Your task to perform on an android device: turn on location history Image 0: 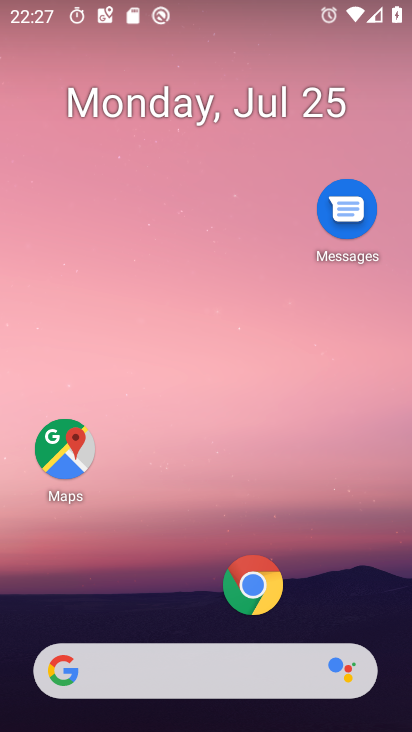
Step 0: press home button
Your task to perform on an android device: turn on location history Image 1: 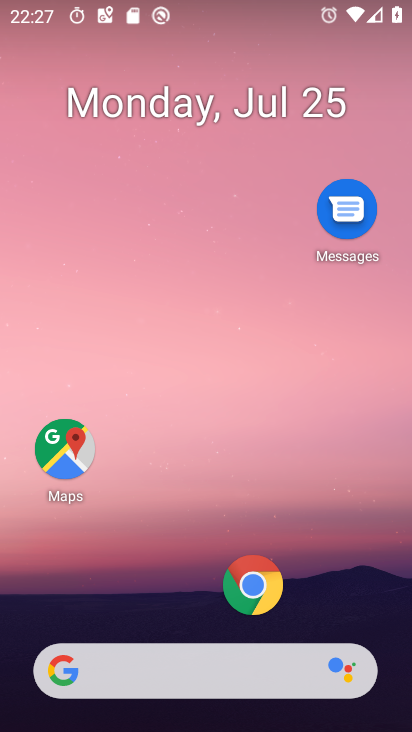
Step 1: click (66, 446)
Your task to perform on an android device: turn on location history Image 2: 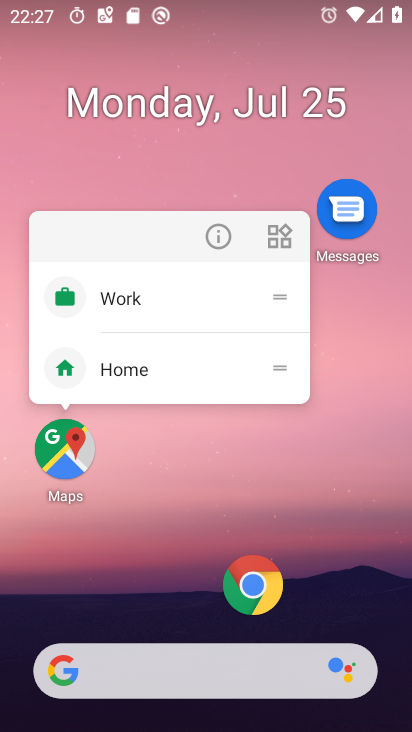
Step 2: click (61, 457)
Your task to perform on an android device: turn on location history Image 3: 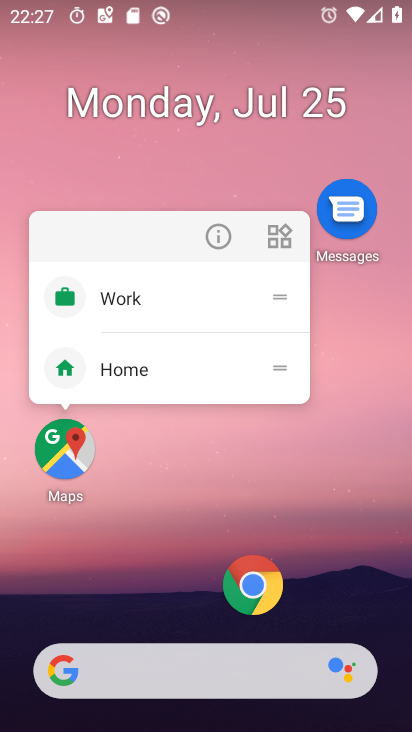
Step 3: click (55, 450)
Your task to perform on an android device: turn on location history Image 4: 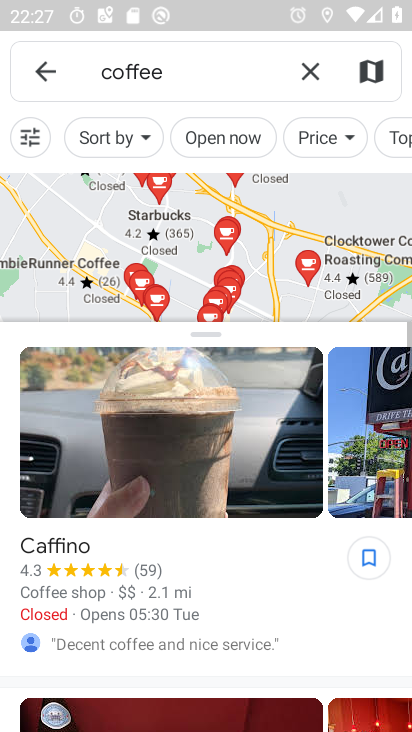
Step 4: click (55, 71)
Your task to perform on an android device: turn on location history Image 5: 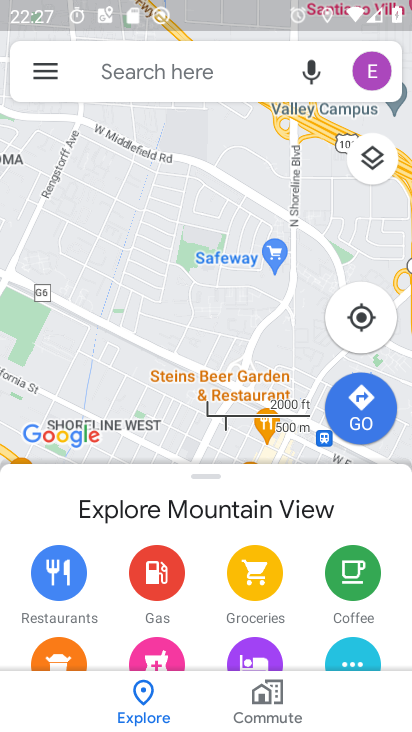
Step 5: click (45, 72)
Your task to perform on an android device: turn on location history Image 6: 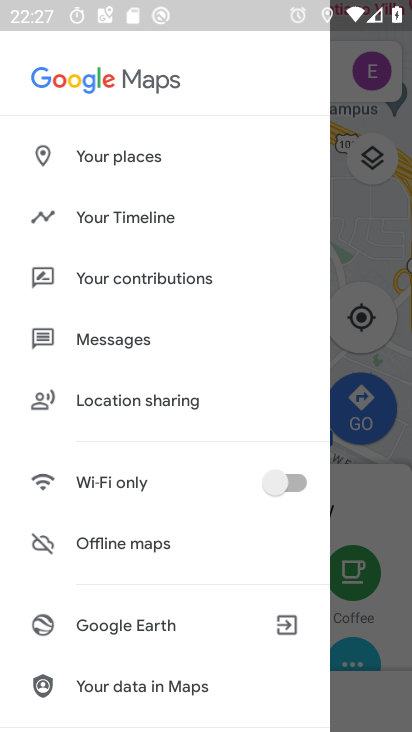
Step 6: click (137, 219)
Your task to perform on an android device: turn on location history Image 7: 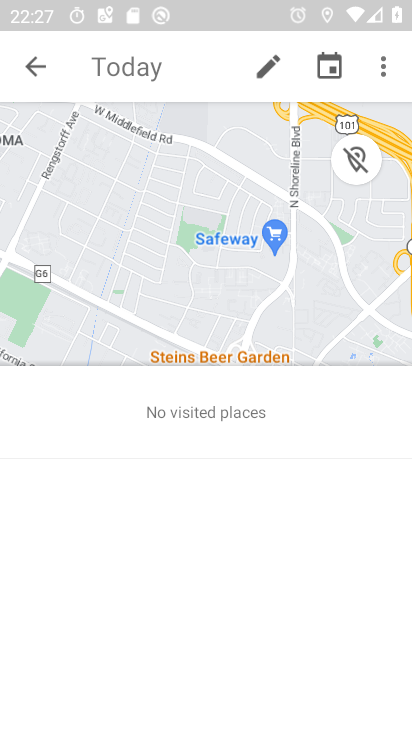
Step 7: click (379, 70)
Your task to perform on an android device: turn on location history Image 8: 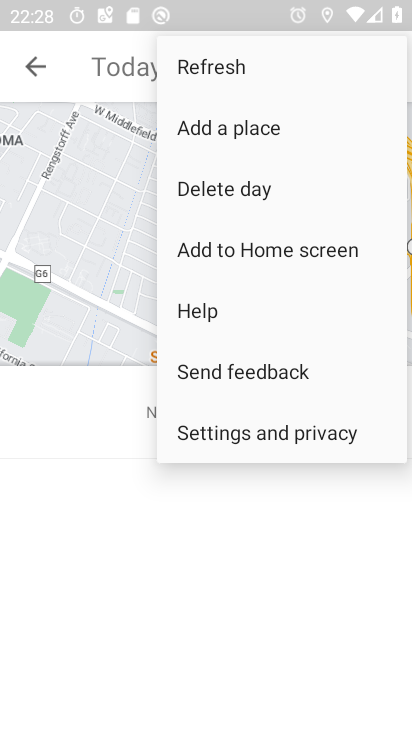
Step 8: click (250, 436)
Your task to perform on an android device: turn on location history Image 9: 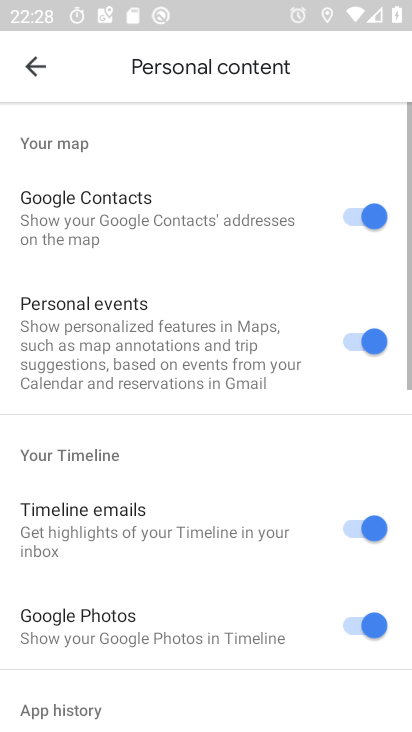
Step 9: drag from (179, 583) to (349, 123)
Your task to perform on an android device: turn on location history Image 10: 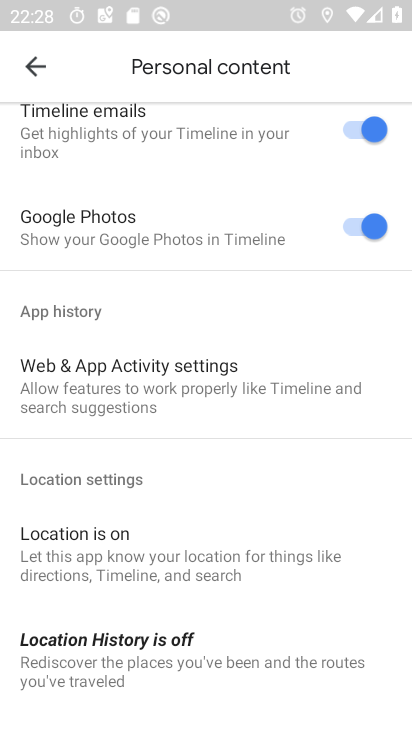
Step 10: drag from (202, 608) to (310, 193)
Your task to perform on an android device: turn on location history Image 11: 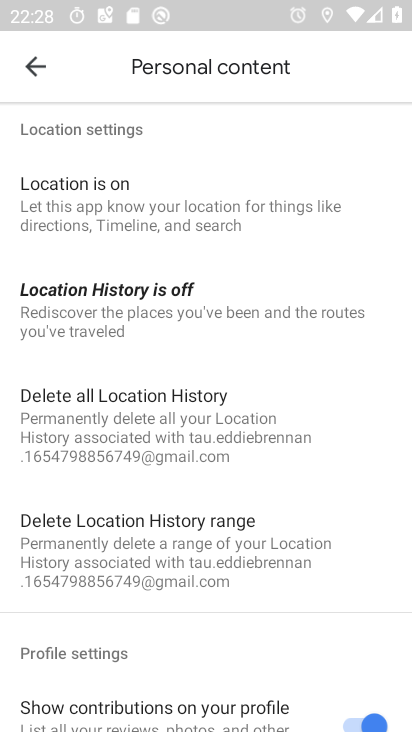
Step 11: click (176, 299)
Your task to perform on an android device: turn on location history Image 12: 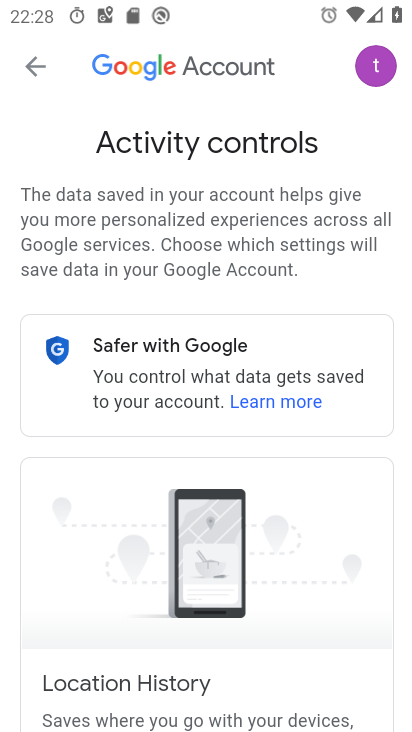
Step 12: drag from (265, 626) to (356, 126)
Your task to perform on an android device: turn on location history Image 13: 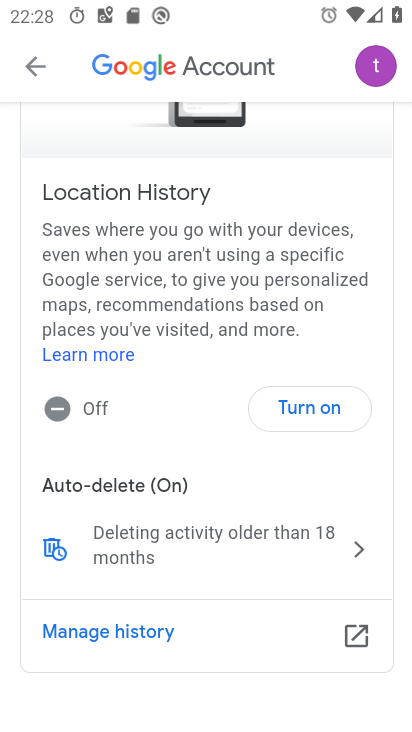
Step 13: click (298, 405)
Your task to perform on an android device: turn on location history Image 14: 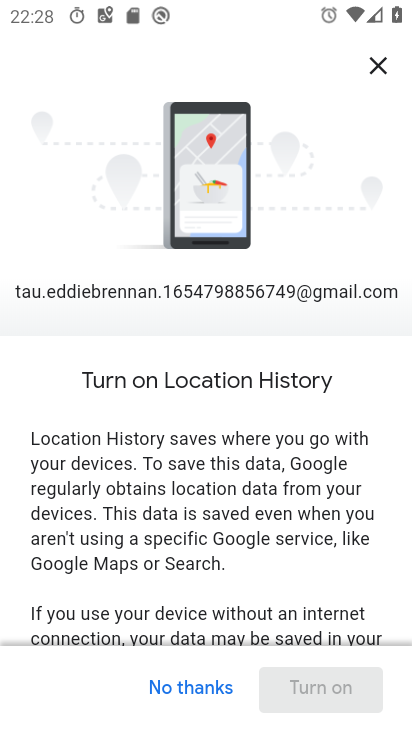
Step 14: drag from (231, 576) to (358, 90)
Your task to perform on an android device: turn on location history Image 15: 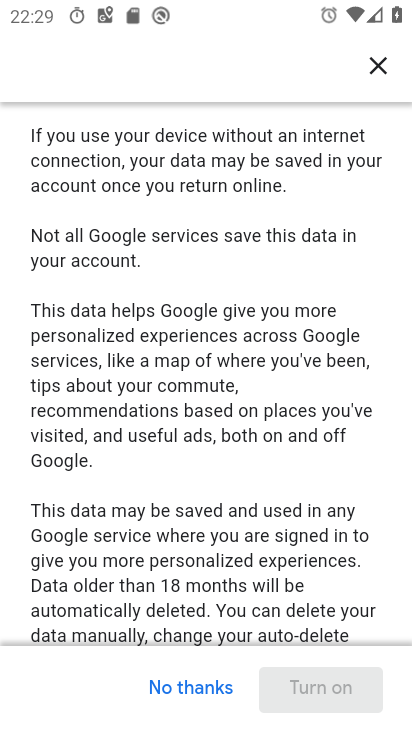
Step 15: drag from (267, 604) to (336, 49)
Your task to perform on an android device: turn on location history Image 16: 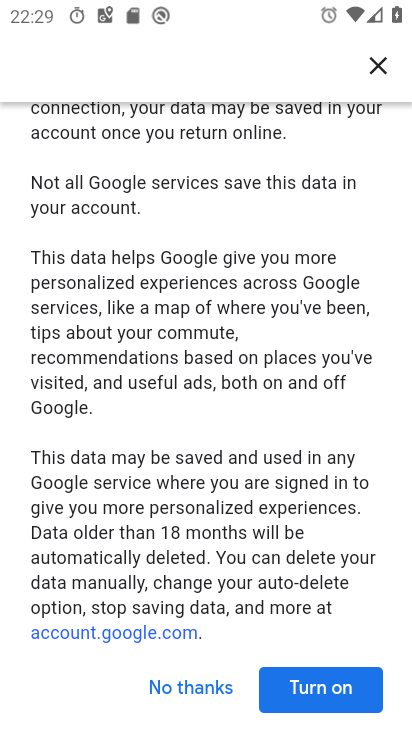
Step 16: click (323, 685)
Your task to perform on an android device: turn on location history Image 17: 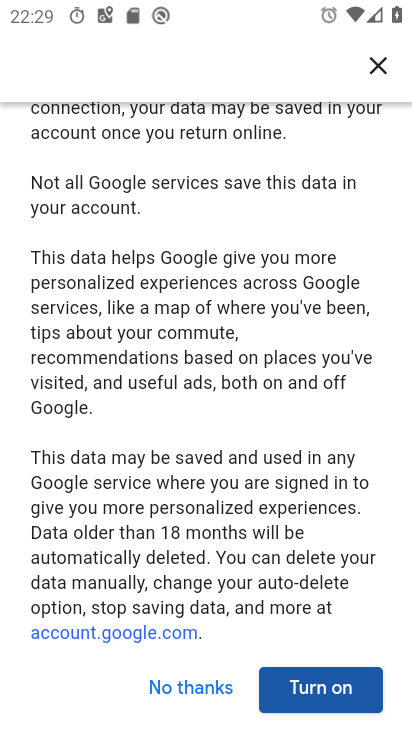
Step 17: click (321, 695)
Your task to perform on an android device: turn on location history Image 18: 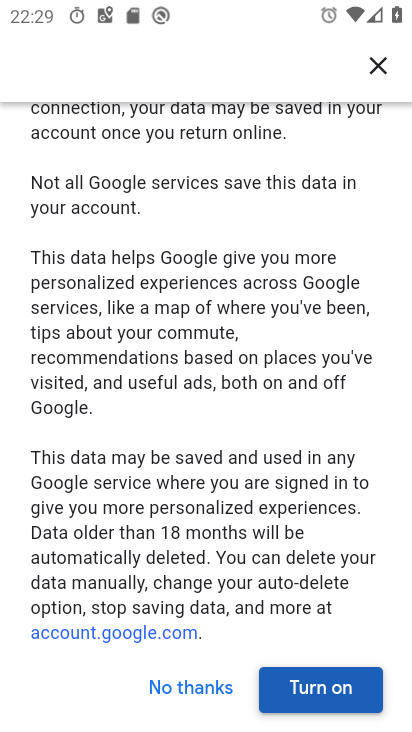
Step 18: click (321, 694)
Your task to perform on an android device: turn on location history Image 19: 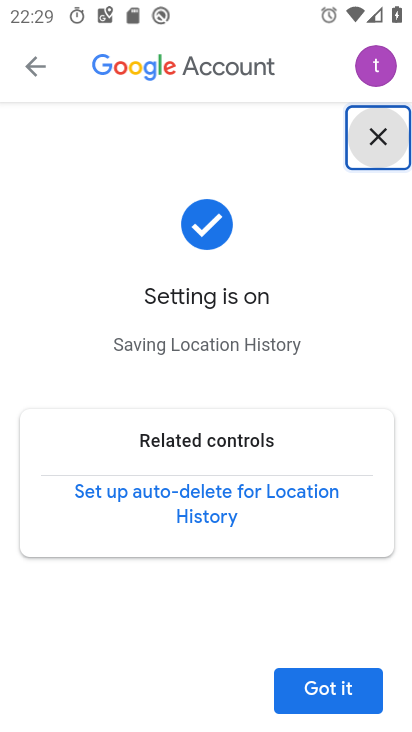
Step 19: click (326, 689)
Your task to perform on an android device: turn on location history Image 20: 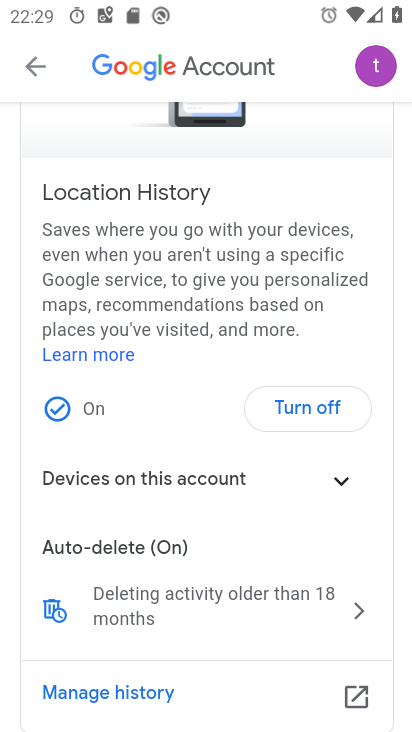
Step 20: task complete